Your task to perform on an android device: Open Google Chrome and open the bookmarks view Image 0: 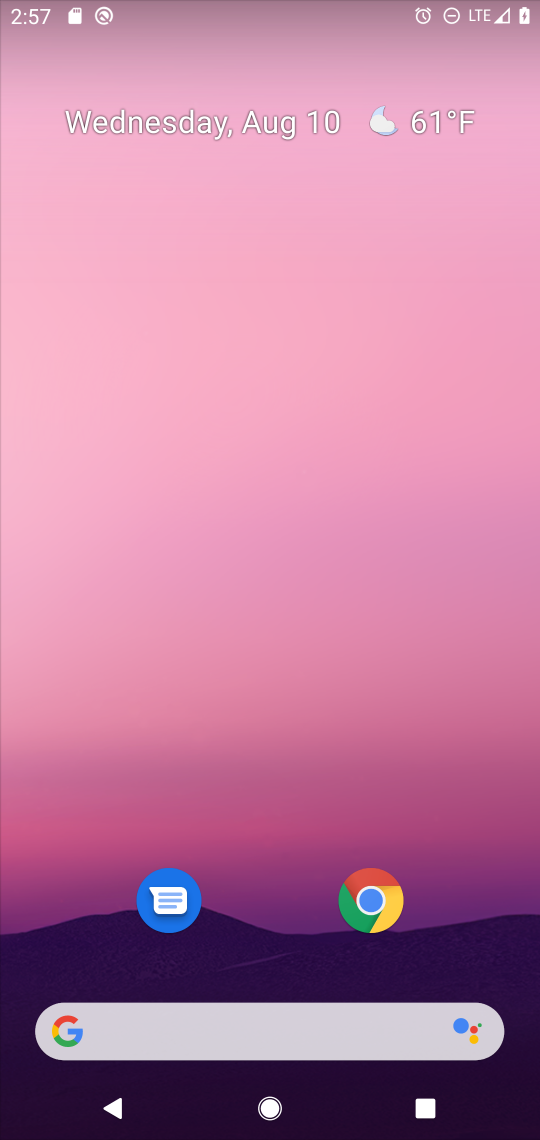
Step 0: click (381, 914)
Your task to perform on an android device: Open Google Chrome and open the bookmarks view Image 1: 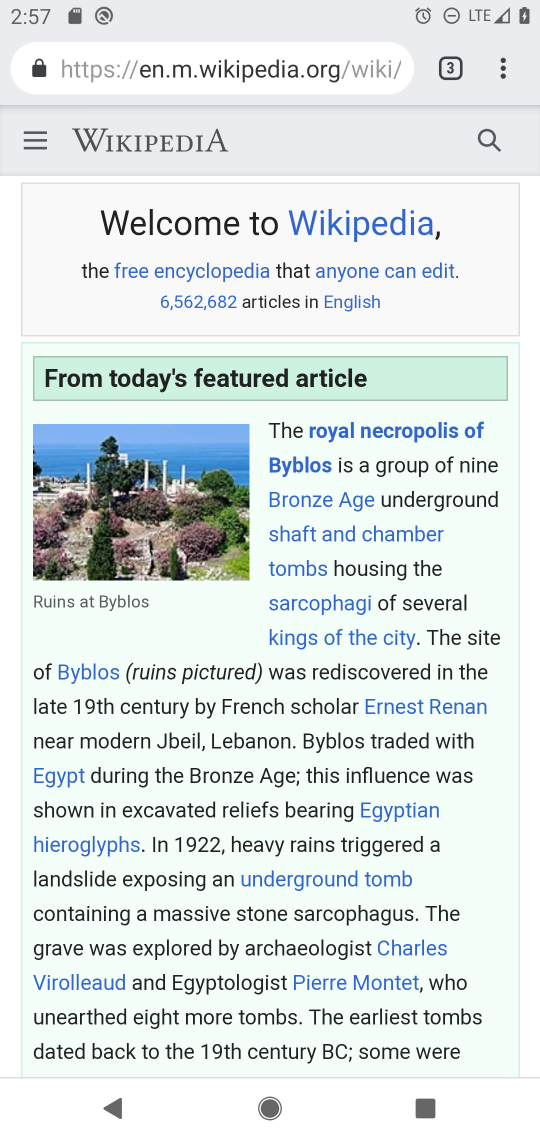
Step 1: click (505, 69)
Your task to perform on an android device: Open Google Chrome and open the bookmarks view Image 2: 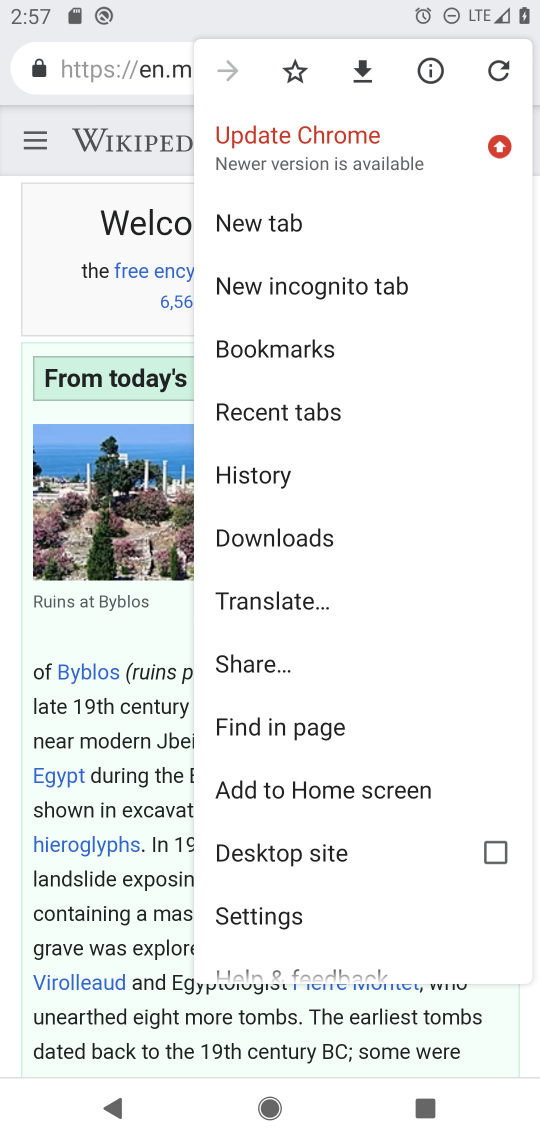
Step 2: click (304, 342)
Your task to perform on an android device: Open Google Chrome and open the bookmarks view Image 3: 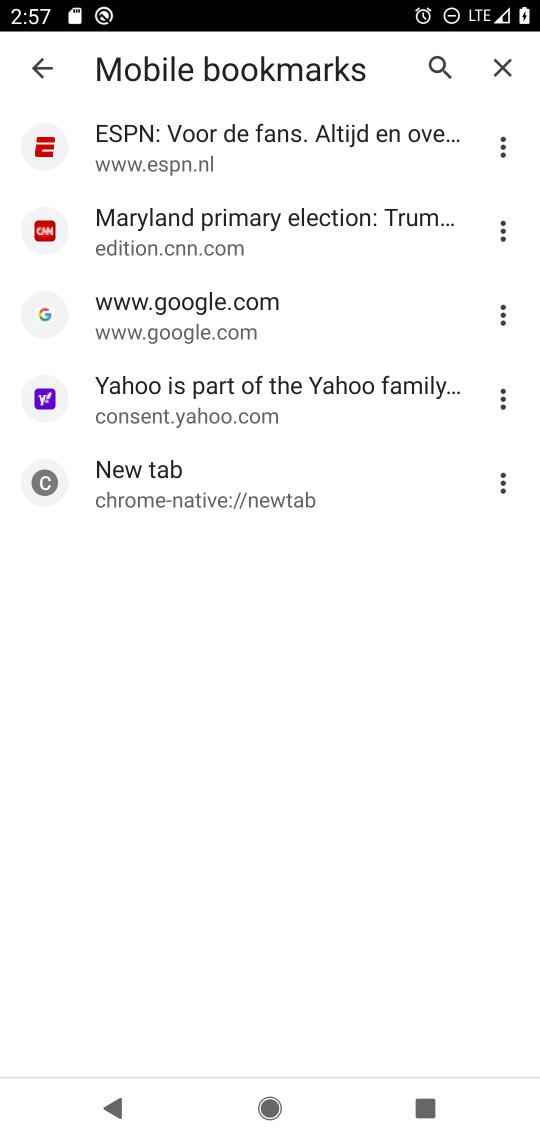
Step 3: task complete